Your task to perform on an android device: clear history in the chrome app Image 0: 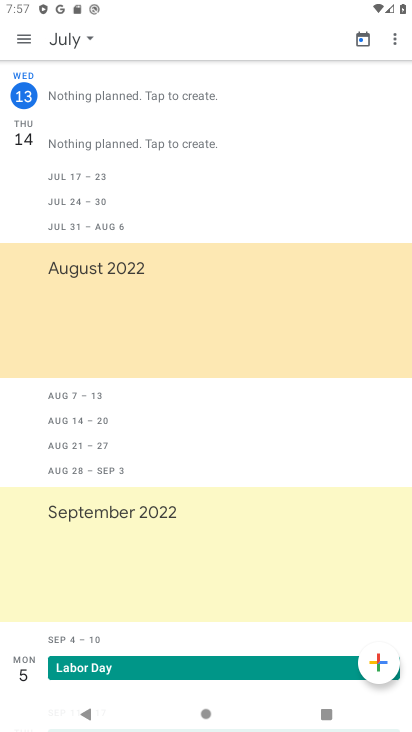
Step 0: press back button
Your task to perform on an android device: clear history in the chrome app Image 1: 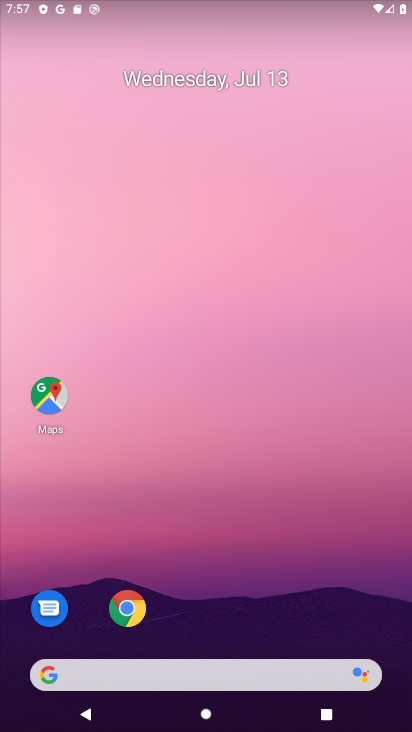
Step 1: drag from (214, 599) to (253, 178)
Your task to perform on an android device: clear history in the chrome app Image 2: 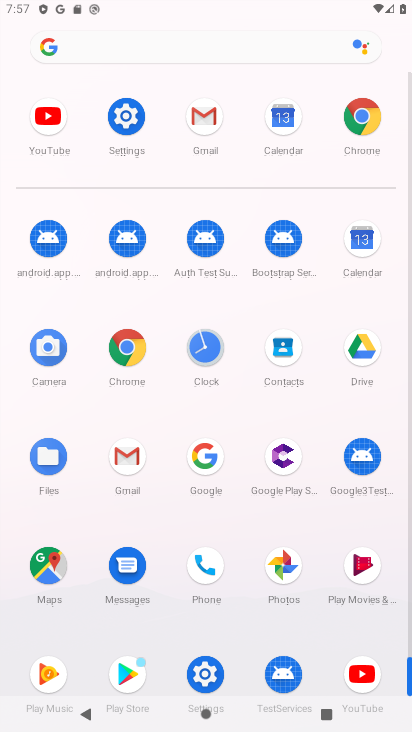
Step 2: click (132, 333)
Your task to perform on an android device: clear history in the chrome app Image 3: 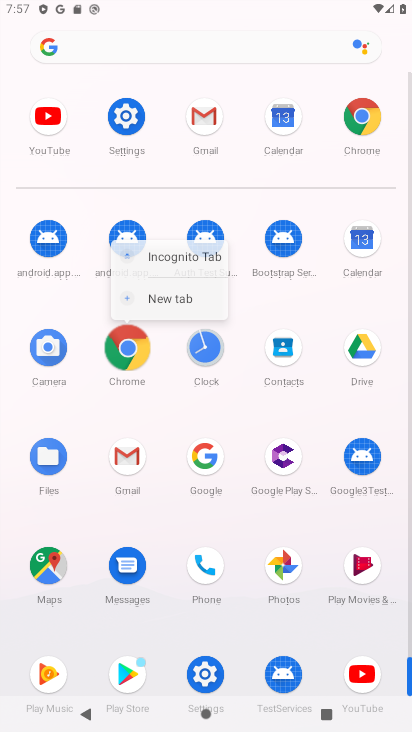
Step 3: click (132, 334)
Your task to perform on an android device: clear history in the chrome app Image 4: 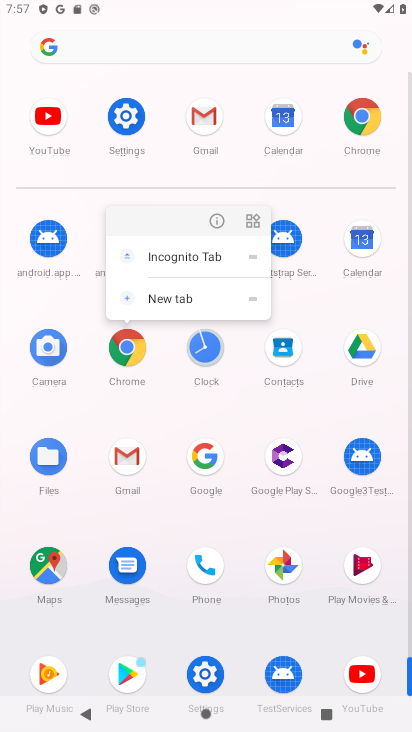
Step 4: click (132, 334)
Your task to perform on an android device: clear history in the chrome app Image 5: 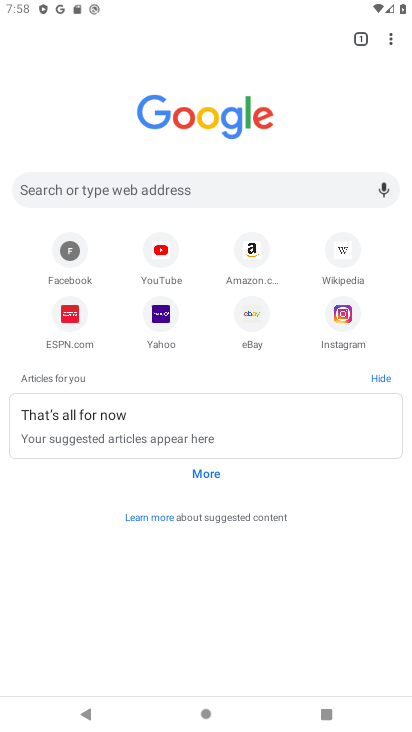
Step 5: drag from (393, 32) to (257, 344)
Your task to perform on an android device: clear history in the chrome app Image 6: 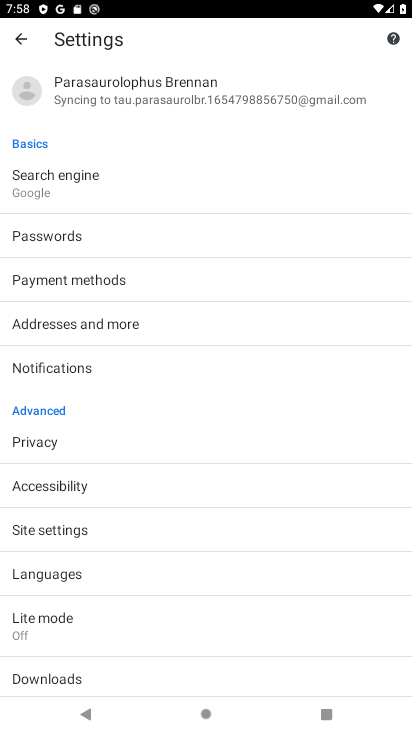
Step 6: click (20, 35)
Your task to perform on an android device: clear history in the chrome app Image 7: 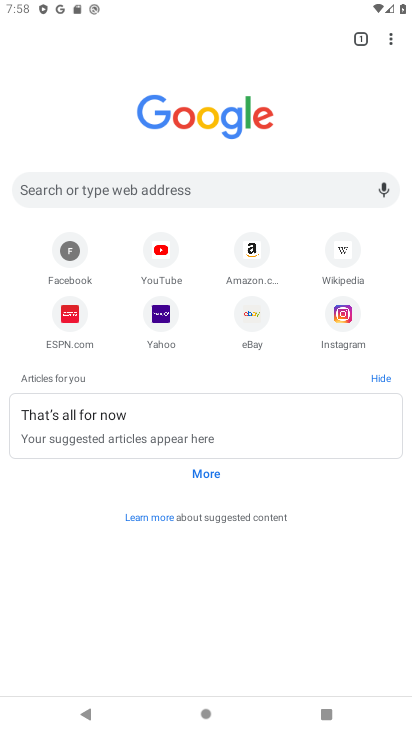
Step 7: drag from (388, 43) to (240, 217)
Your task to perform on an android device: clear history in the chrome app Image 8: 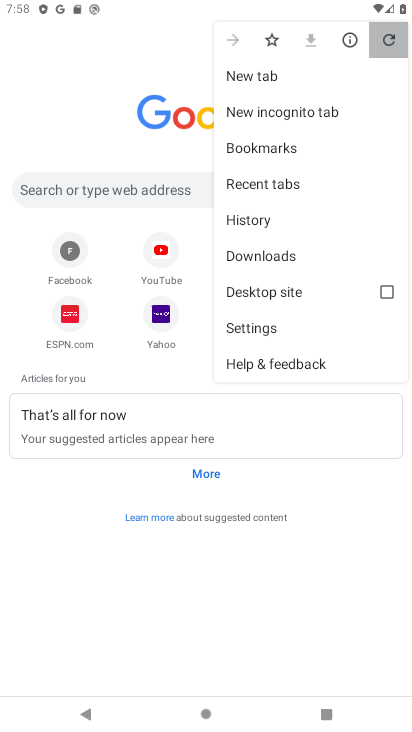
Step 8: click (244, 215)
Your task to perform on an android device: clear history in the chrome app Image 9: 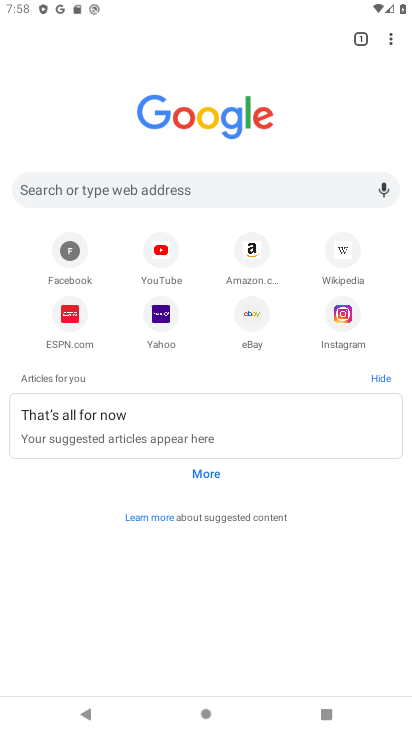
Step 9: click (247, 213)
Your task to perform on an android device: clear history in the chrome app Image 10: 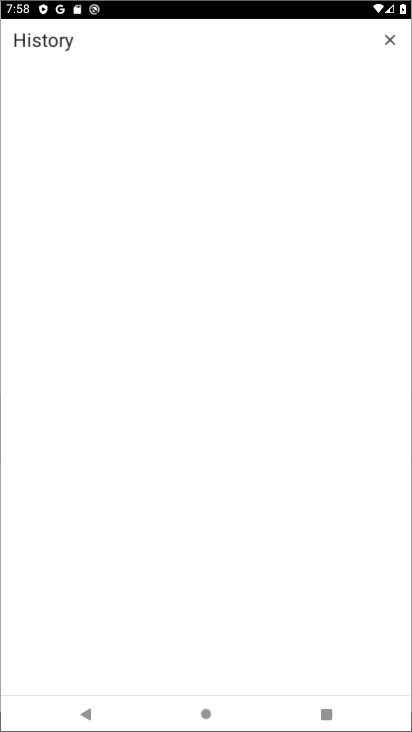
Step 10: click (251, 212)
Your task to perform on an android device: clear history in the chrome app Image 11: 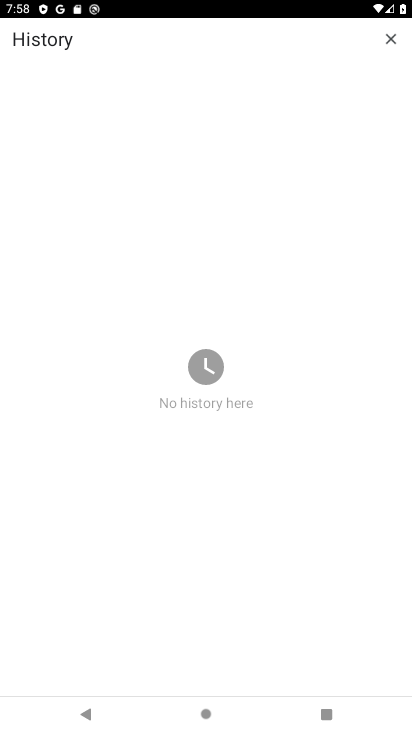
Step 11: task complete